Your task to perform on an android device: see sites visited before in the chrome app Image 0: 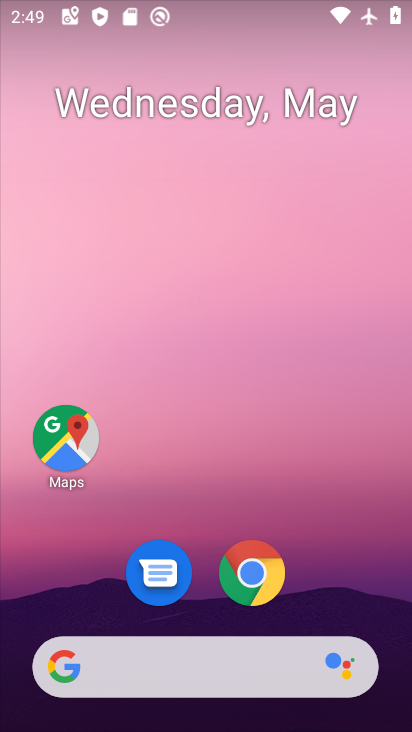
Step 0: click (252, 574)
Your task to perform on an android device: see sites visited before in the chrome app Image 1: 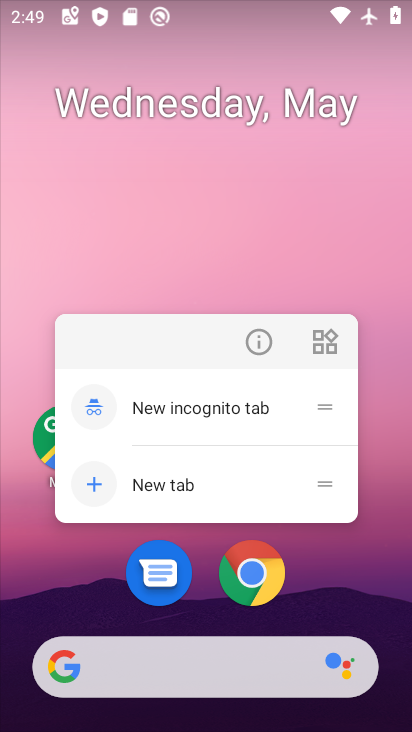
Step 1: click (252, 574)
Your task to perform on an android device: see sites visited before in the chrome app Image 2: 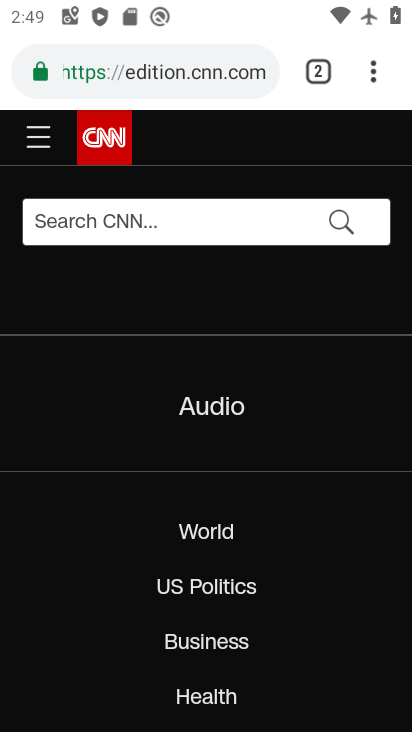
Step 2: click (382, 78)
Your task to perform on an android device: see sites visited before in the chrome app Image 3: 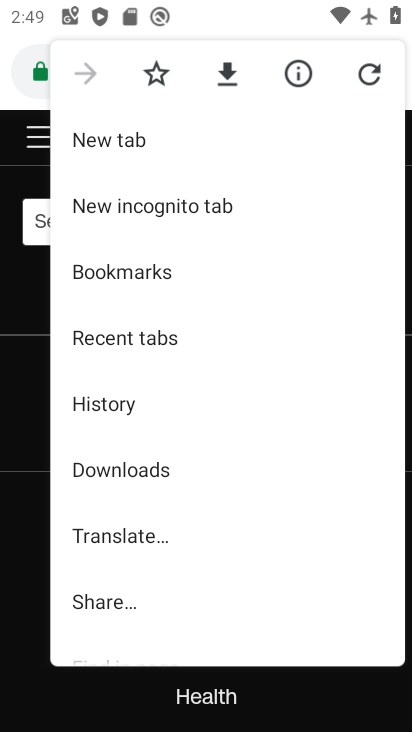
Step 3: click (137, 403)
Your task to perform on an android device: see sites visited before in the chrome app Image 4: 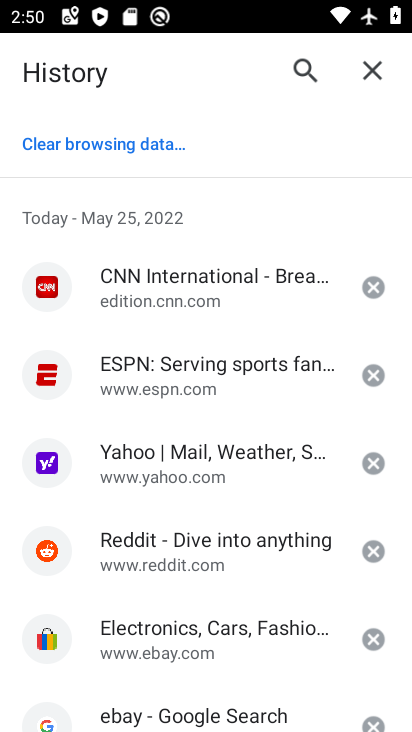
Step 4: task complete